Your task to perform on an android device: Open Yahoo.com Image 0: 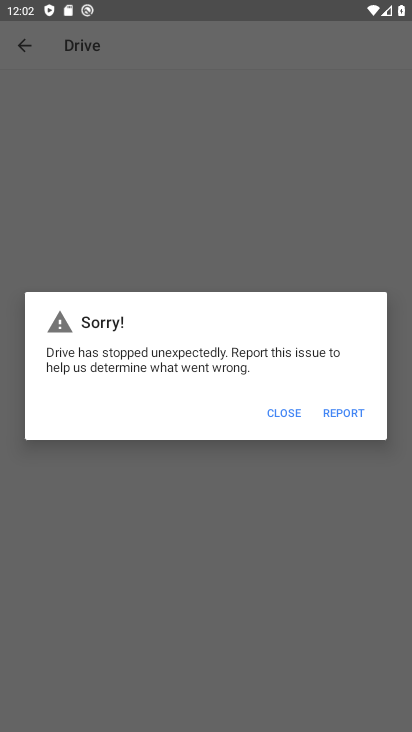
Step 0: press home button
Your task to perform on an android device: Open Yahoo.com Image 1: 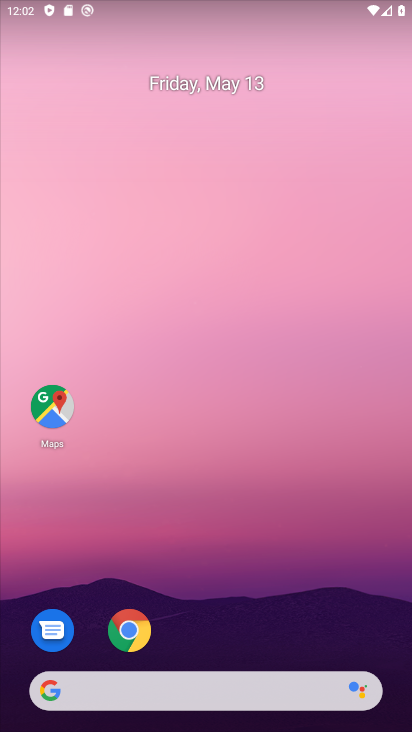
Step 1: drag from (293, 619) to (295, 158)
Your task to perform on an android device: Open Yahoo.com Image 2: 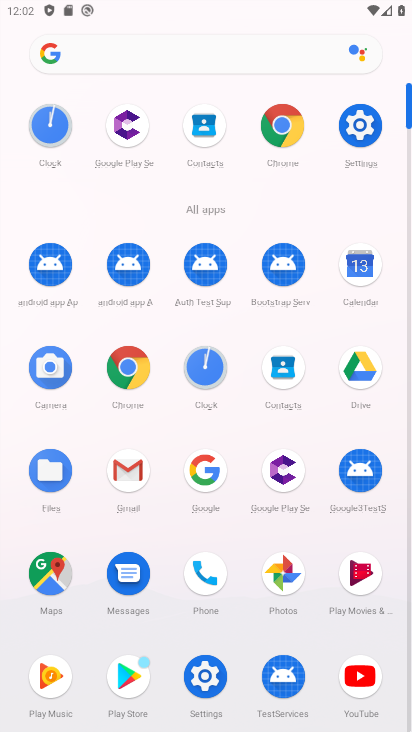
Step 2: click (119, 385)
Your task to perform on an android device: Open Yahoo.com Image 3: 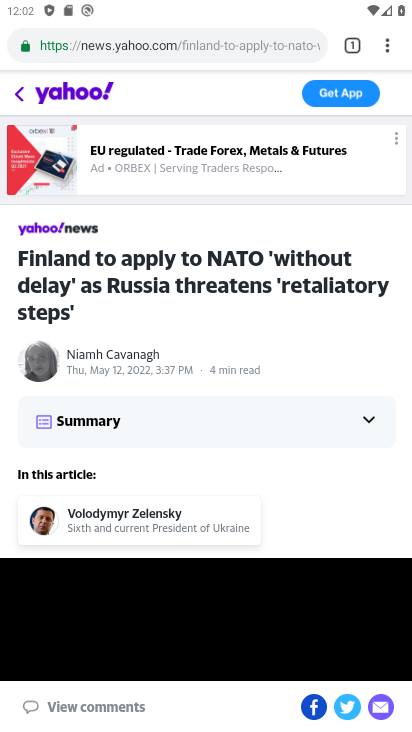
Step 3: click (173, 40)
Your task to perform on an android device: Open Yahoo.com Image 4: 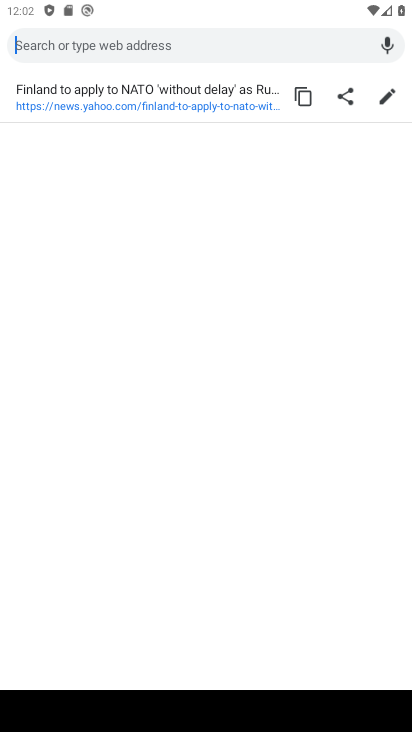
Step 4: type "yahoo.com"
Your task to perform on an android device: Open Yahoo.com Image 5: 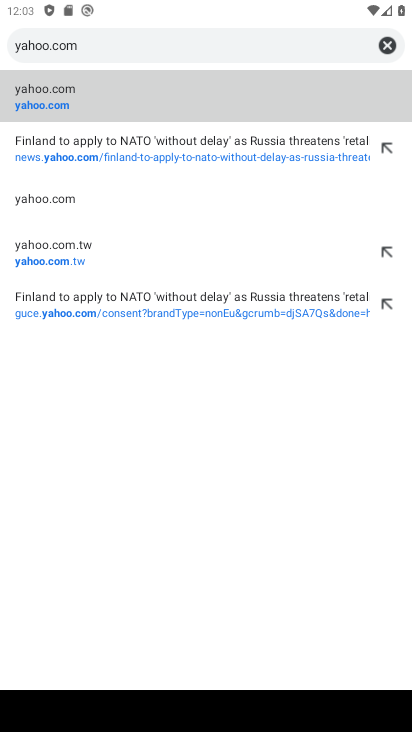
Step 5: click (91, 101)
Your task to perform on an android device: Open Yahoo.com Image 6: 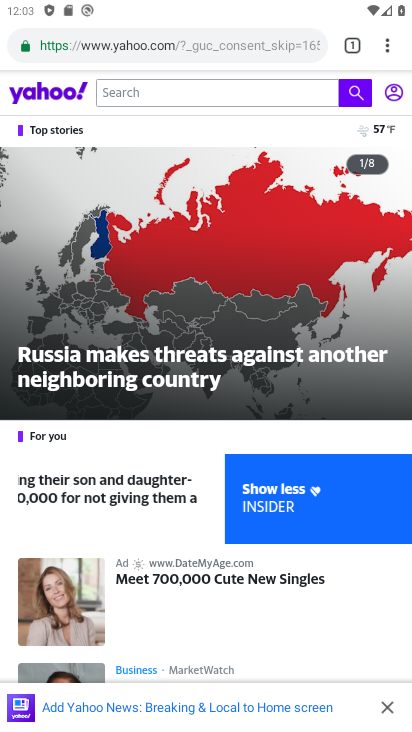
Step 6: task complete